Your task to perform on an android device: Go to notification settings Image 0: 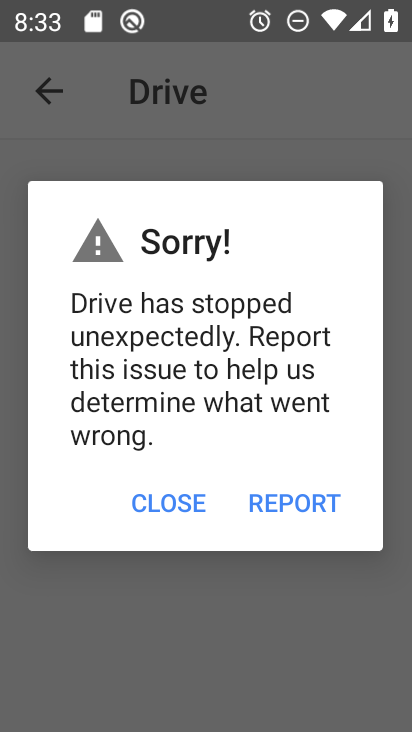
Step 0: press home button
Your task to perform on an android device: Go to notification settings Image 1: 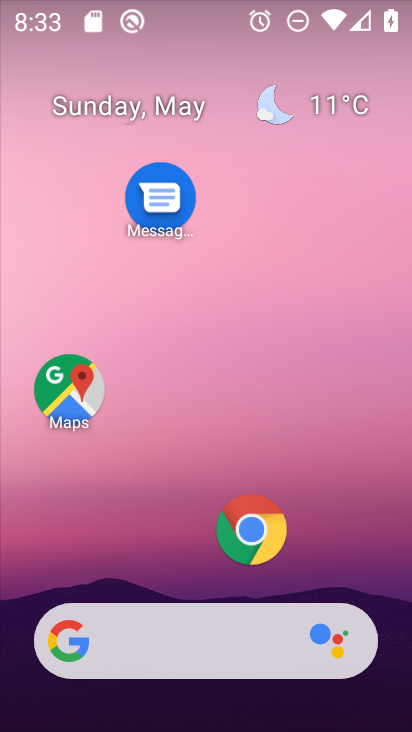
Step 1: drag from (199, 576) to (269, 28)
Your task to perform on an android device: Go to notification settings Image 2: 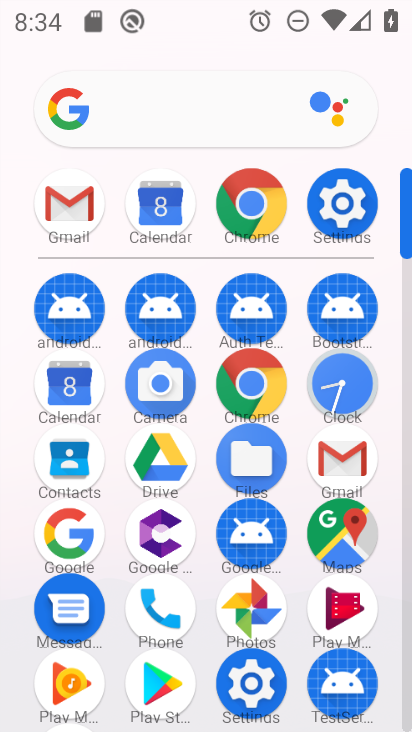
Step 2: click (342, 198)
Your task to perform on an android device: Go to notification settings Image 3: 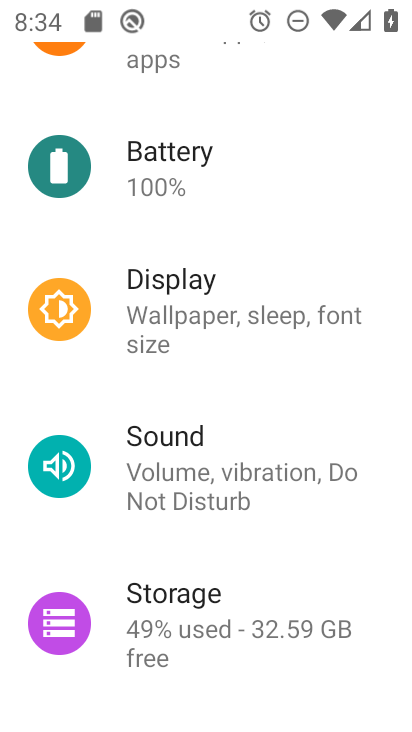
Step 3: drag from (219, 150) to (231, 579)
Your task to perform on an android device: Go to notification settings Image 4: 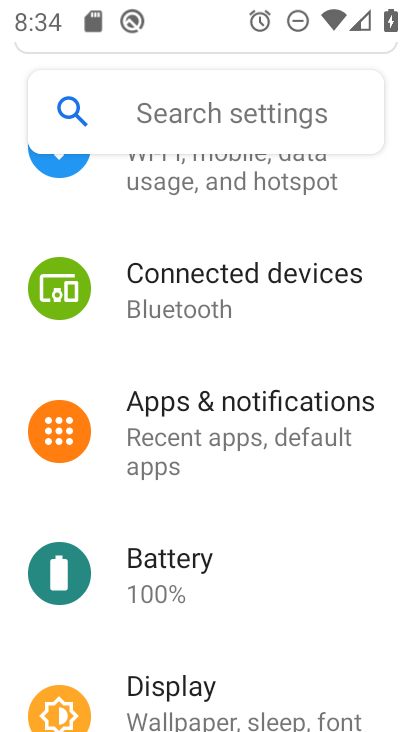
Step 4: click (109, 417)
Your task to perform on an android device: Go to notification settings Image 5: 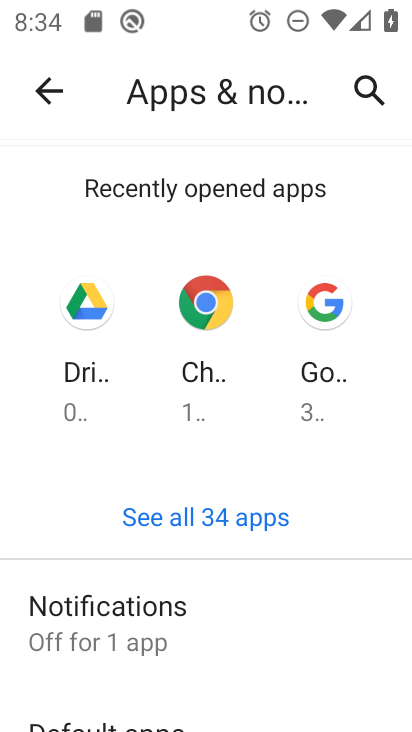
Step 5: click (192, 630)
Your task to perform on an android device: Go to notification settings Image 6: 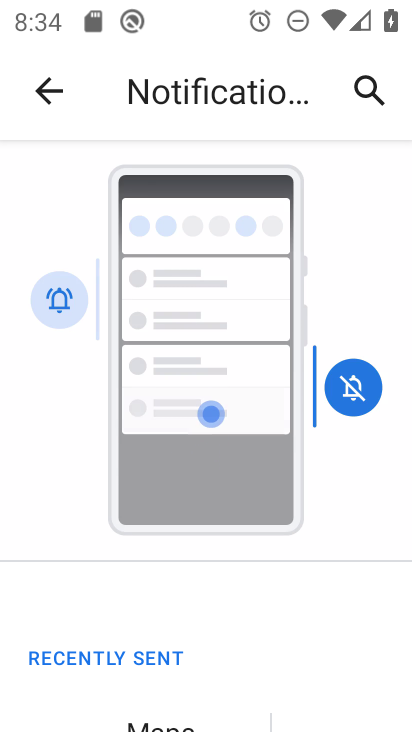
Step 6: drag from (193, 605) to (256, 225)
Your task to perform on an android device: Go to notification settings Image 7: 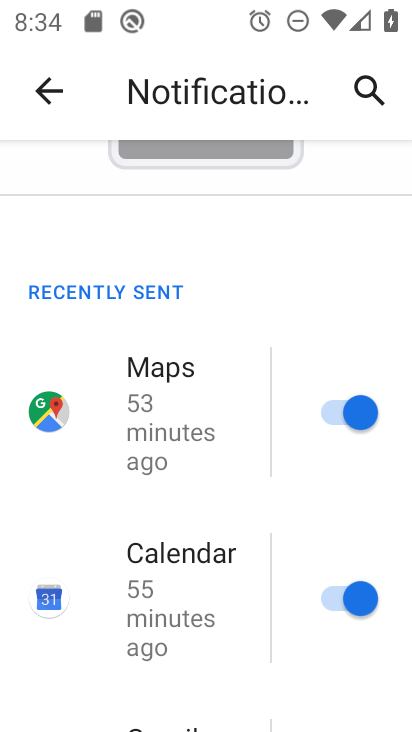
Step 7: click (335, 413)
Your task to perform on an android device: Go to notification settings Image 8: 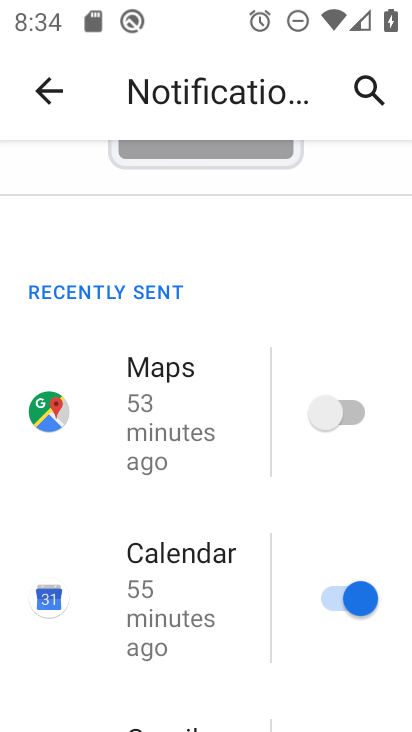
Step 8: click (335, 594)
Your task to perform on an android device: Go to notification settings Image 9: 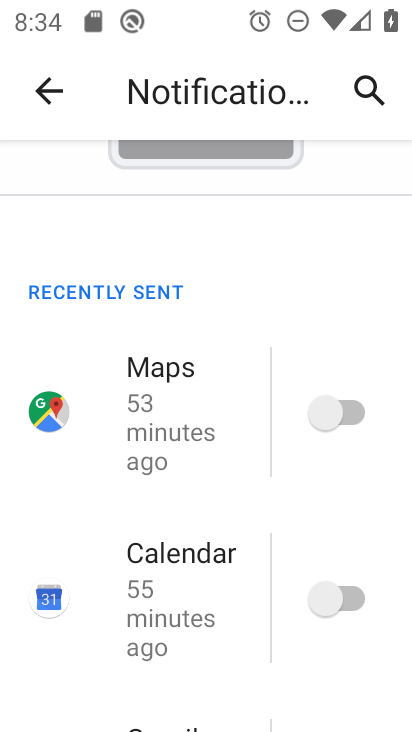
Step 9: drag from (225, 606) to (296, 165)
Your task to perform on an android device: Go to notification settings Image 10: 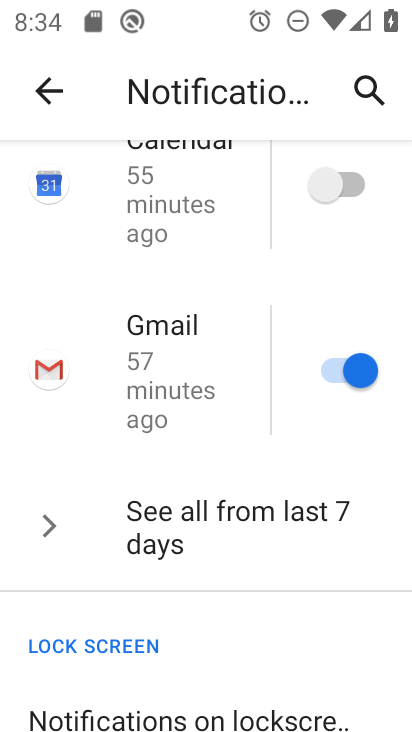
Step 10: click (335, 363)
Your task to perform on an android device: Go to notification settings Image 11: 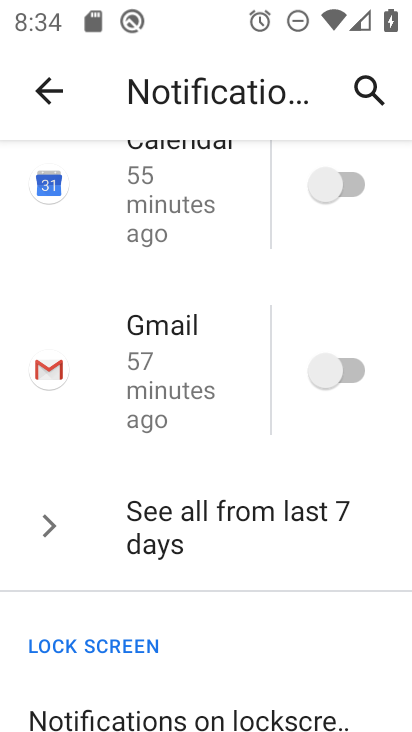
Step 11: drag from (206, 604) to (291, 141)
Your task to perform on an android device: Go to notification settings Image 12: 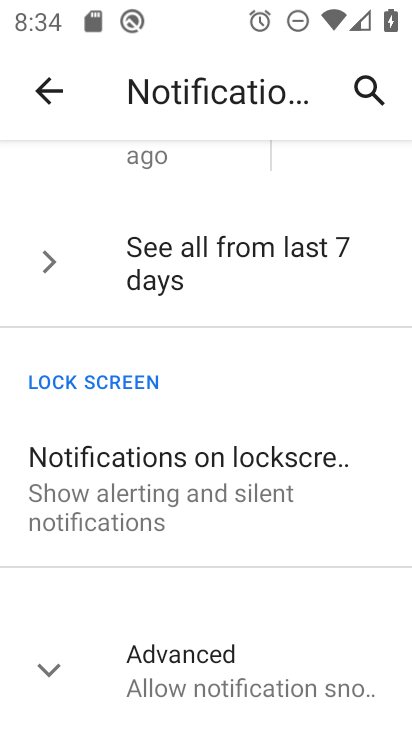
Step 12: click (247, 477)
Your task to perform on an android device: Go to notification settings Image 13: 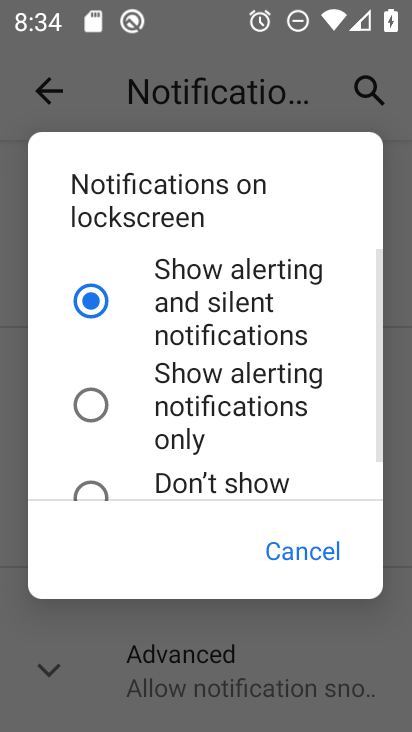
Step 13: click (92, 399)
Your task to perform on an android device: Go to notification settings Image 14: 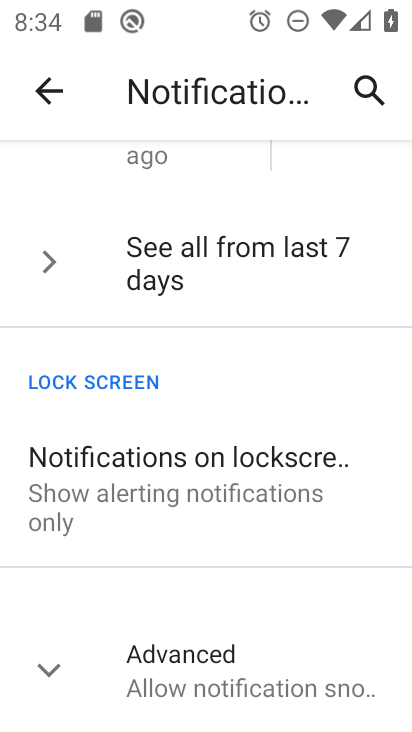
Step 14: task complete